Your task to perform on an android device: Open Chrome and go to settings Image 0: 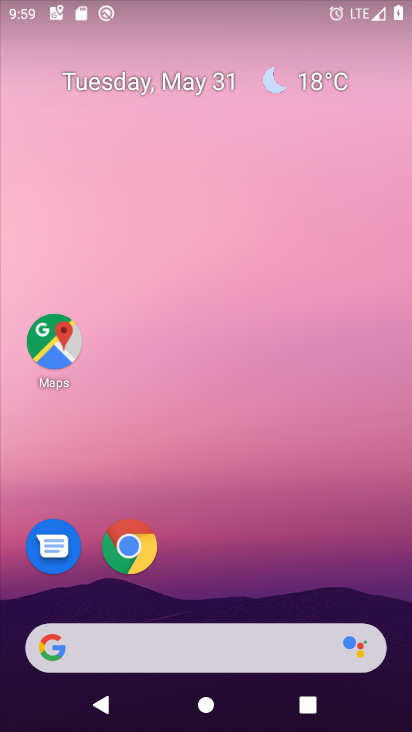
Step 0: click (132, 545)
Your task to perform on an android device: Open Chrome and go to settings Image 1: 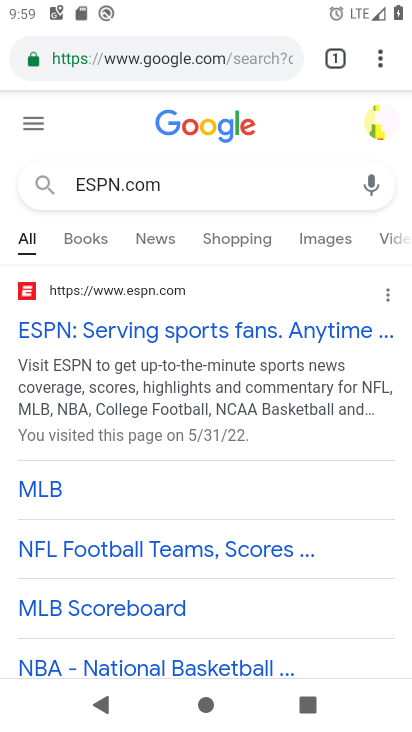
Step 1: click (378, 61)
Your task to perform on an android device: Open Chrome and go to settings Image 2: 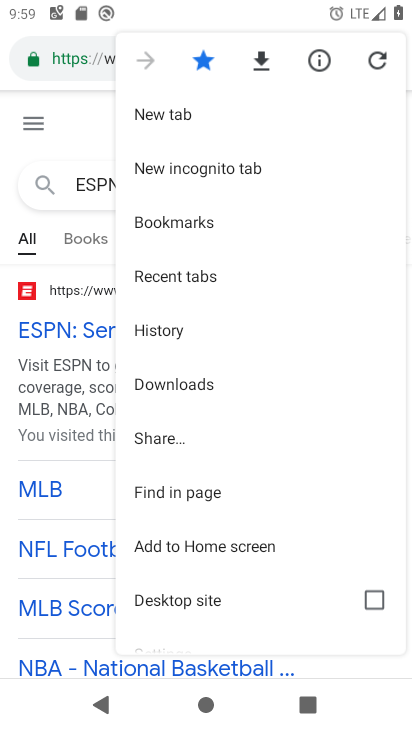
Step 2: drag from (202, 564) to (239, 420)
Your task to perform on an android device: Open Chrome and go to settings Image 3: 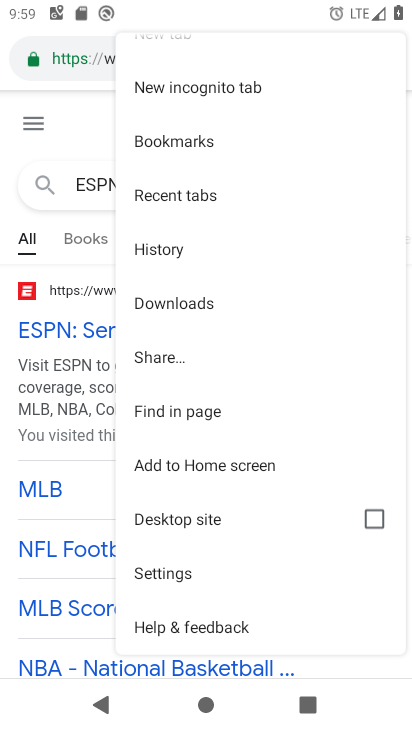
Step 3: click (182, 576)
Your task to perform on an android device: Open Chrome and go to settings Image 4: 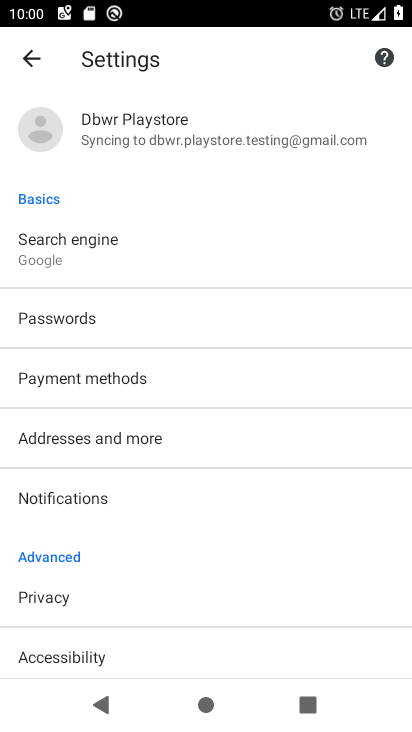
Step 4: task complete